Your task to perform on an android device: change the upload size in google photos Image 0: 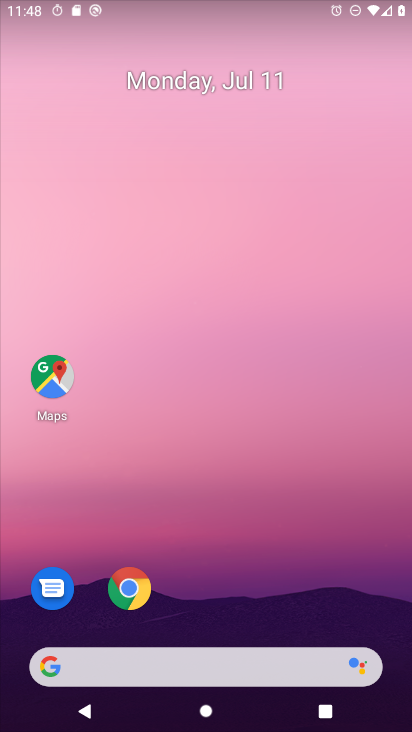
Step 0: drag from (215, 606) to (251, 26)
Your task to perform on an android device: change the upload size in google photos Image 1: 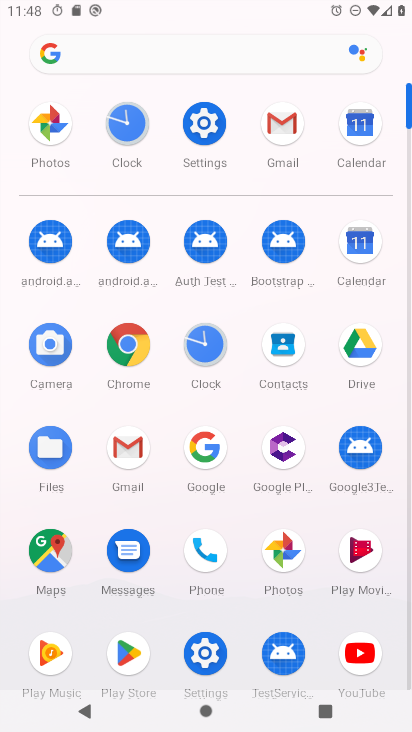
Step 1: click (286, 545)
Your task to perform on an android device: change the upload size in google photos Image 2: 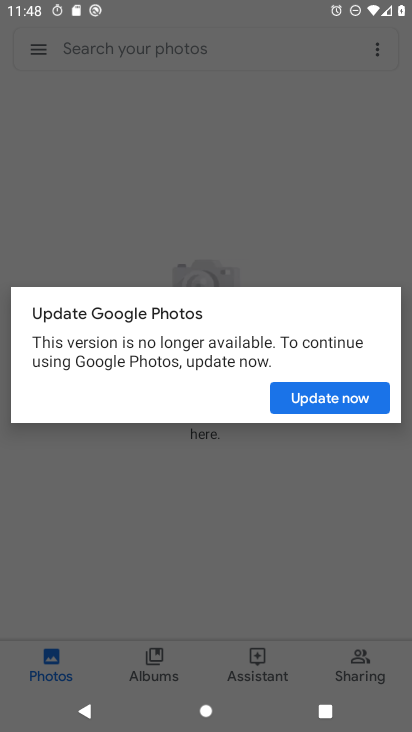
Step 2: click (306, 402)
Your task to perform on an android device: change the upload size in google photos Image 3: 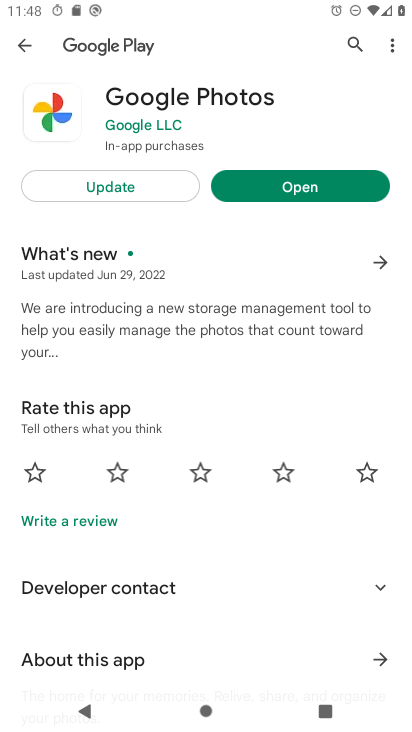
Step 3: click (281, 188)
Your task to perform on an android device: change the upload size in google photos Image 4: 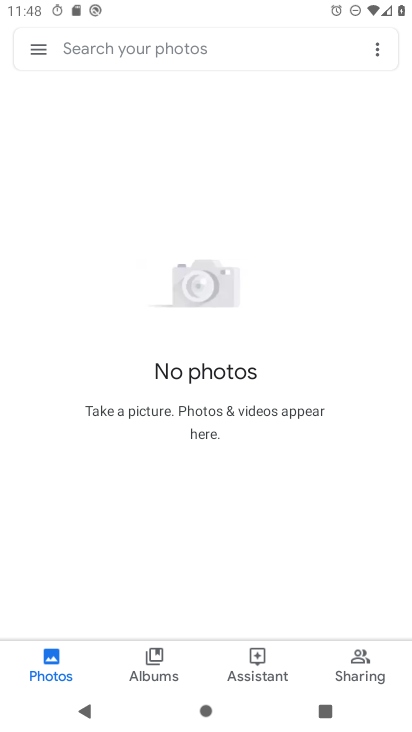
Step 4: click (27, 38)
Your task to perform on an android device: change the upload size in google photos Image 5: 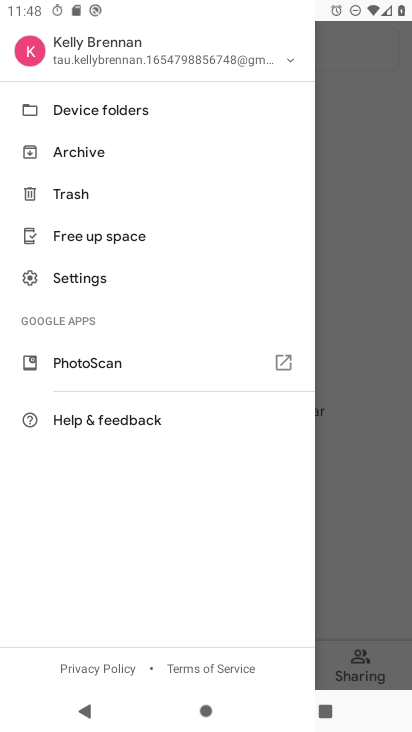
Step 5: click (84, 275)
Your task to perform on an android device: change the upload size in google photos Image 6: 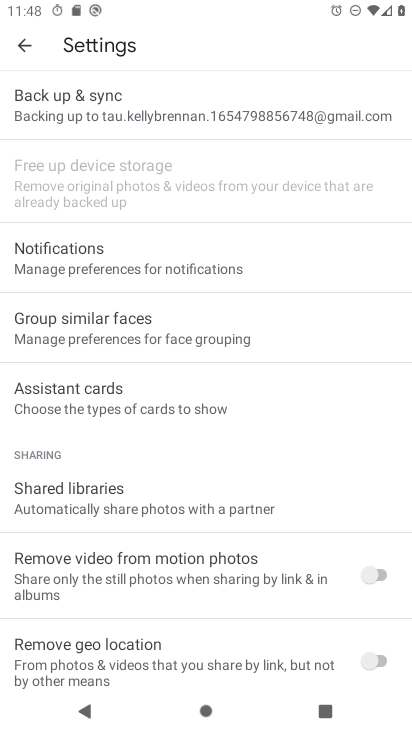
Step 6: click (124, 114)
Your task to perform on an android device: change the upload size in google photos Image 7: 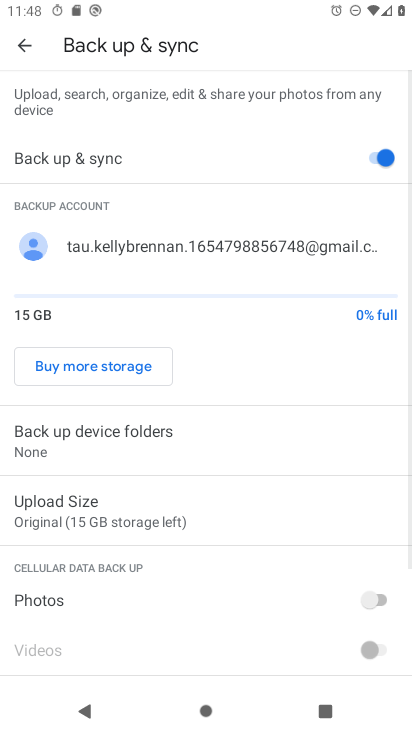
Step 7: click (202, 515)
Your task to perform on an android device: change the upload size in google photos Image 8: 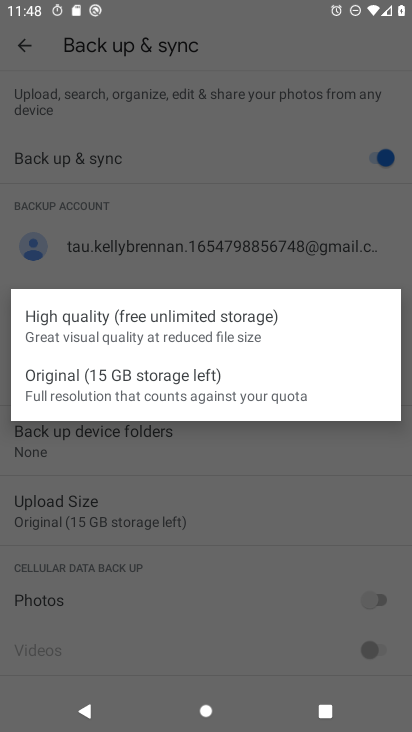
Step 8: click (94, 314)
Your task to perform on an android device: change the upload size in google photos Image 9: 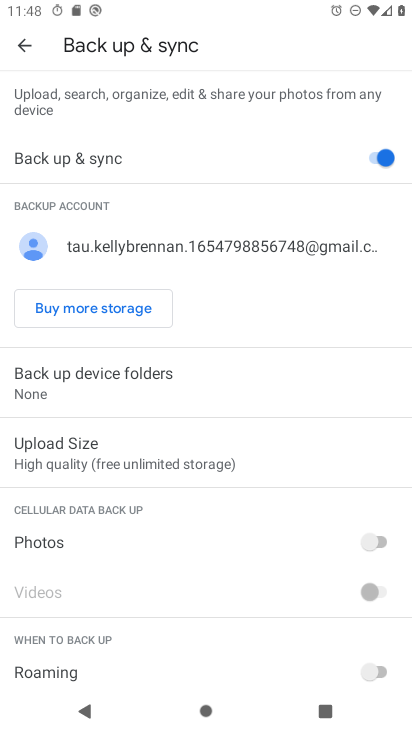
Step 9: task complete